Your task to perform on an android device: change the clock display to digital Image 0: 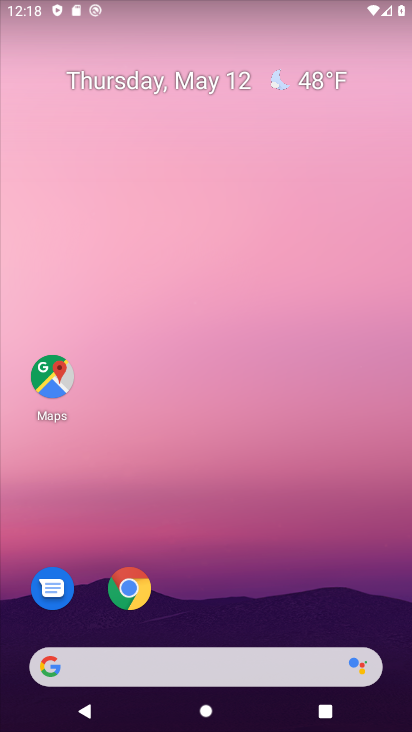
Step 0: drag from (229, 576) to (161, 165)
Your task to perform on an android device: change the clock display to digital Image 1: 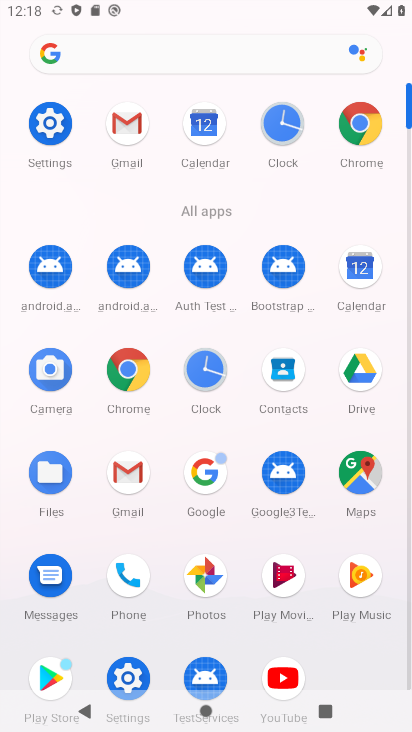
Step 1: click (286, 128)
Your task to perform on an android device: change the clock display to digital Image 2: 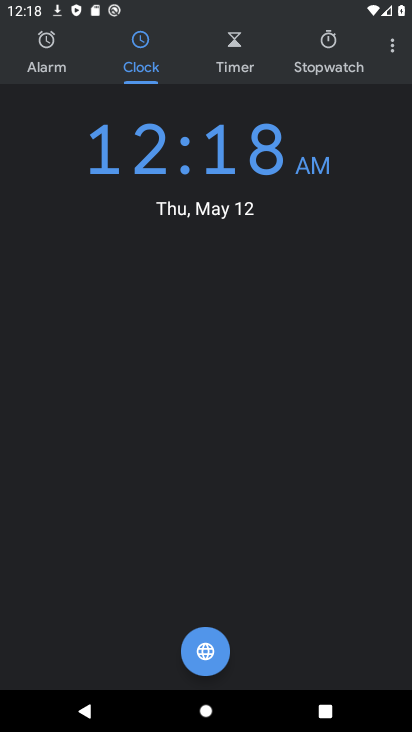
Step 2: click (390, 43)
Your task to perform on an android device: change the clock display to digital Image 3: 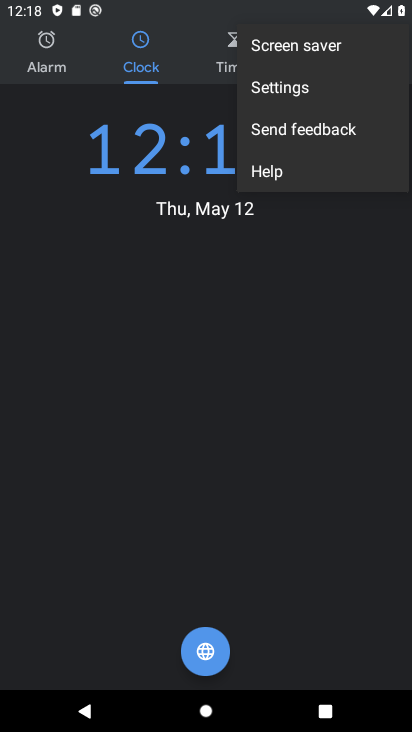
Step 3: click (296, 86)
Your task to perform on an android device: change the clock display to digital Image 4: 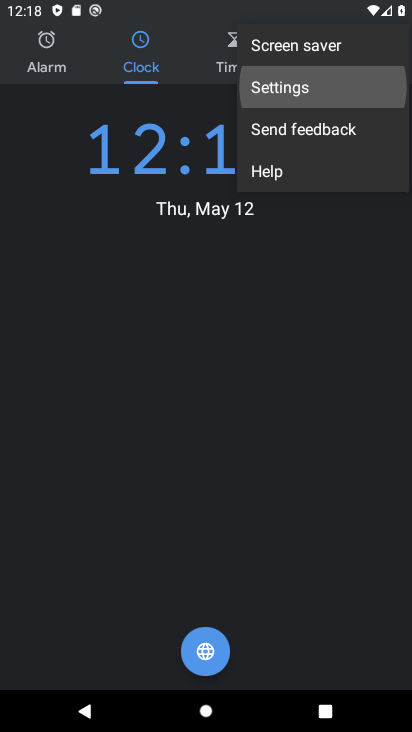
Step 4: click (296, 86)
Your task to perform on an android device: change the clock display to digital Image 5: 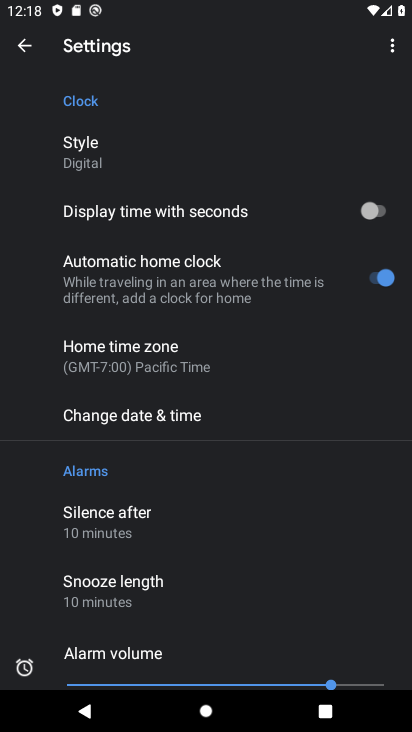
Step 5: click (120, 131)
Your task to perform on an android device: change the clock display to digital Image 6: 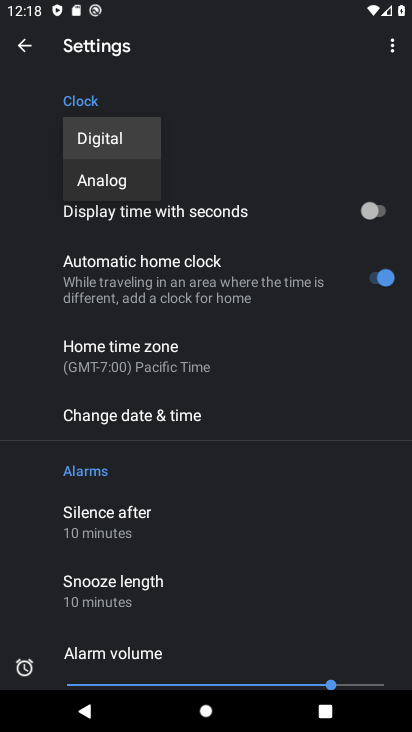
Step 6: click (134, 135)
Your task to perform on an android device: change the clock display to digital Image 7: 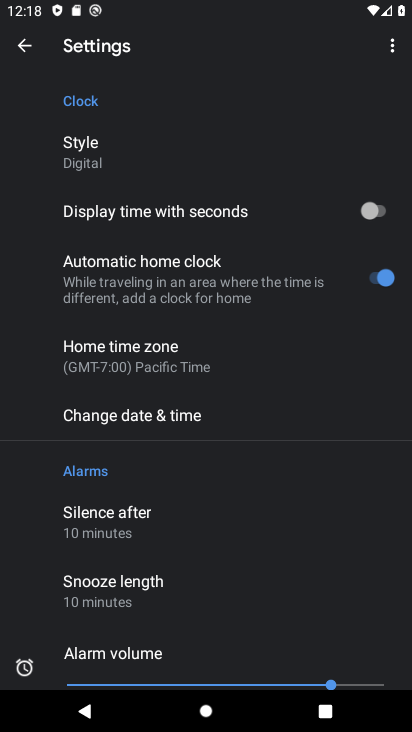
Step 7: task complete